Your task to perform on an android device: change timer sound Image 0: 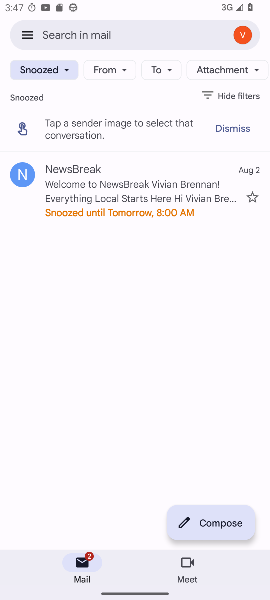
Step 0: press home button
Your task to perform on an android device: change timer sound Image 1: 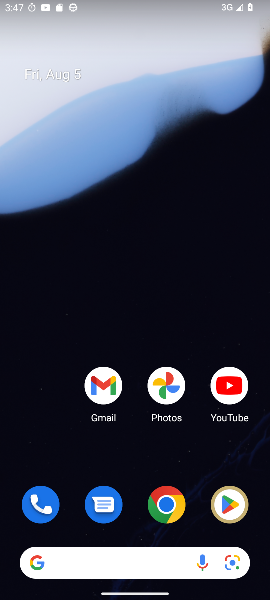
Step 1: drag from (66, 568) to (145, 104)
Your task to perform on an android device: change timer sound Image 2: 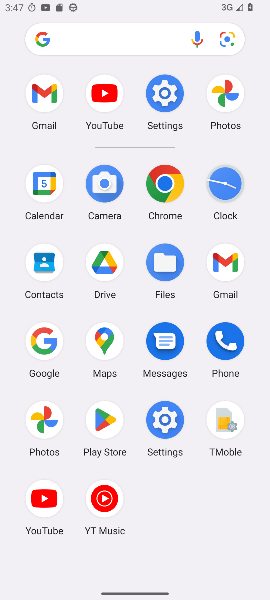
Step 2: click (221, 180)
Your task to perform on an android device: change timer sound Image 3: 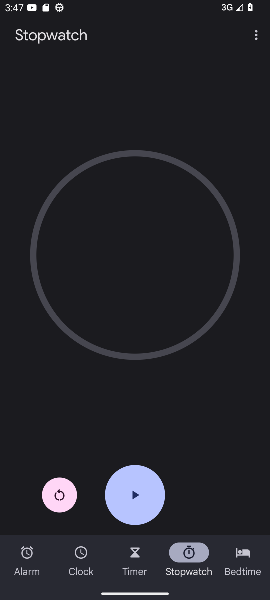
Step 3: click (124, 556)
Your task to perform on an android device: change timer sound Image 4: 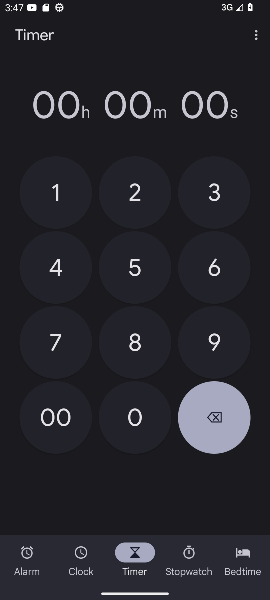
Step 4: click (254, 35)
Your task to perform on an android device: change timer sound Image 5: 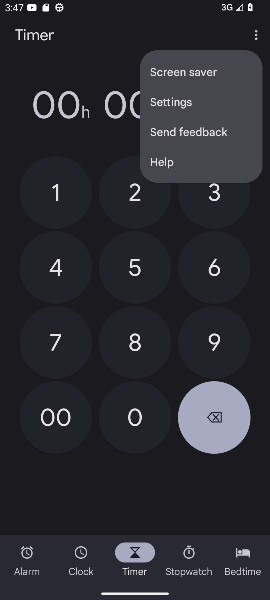
Step 5: click (171, 92)
Your task to perform on an android device: change timer sound Image 6: 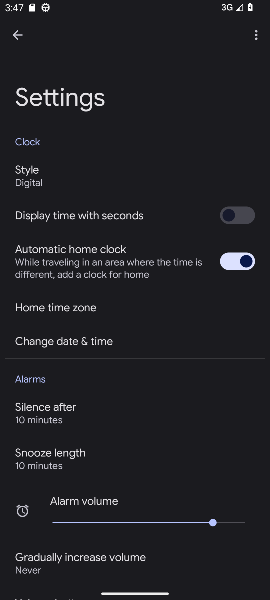
Step 6: drag from (97, 461) to (107, 177)
Your task to perform on an android device: change timer sound Image 7: 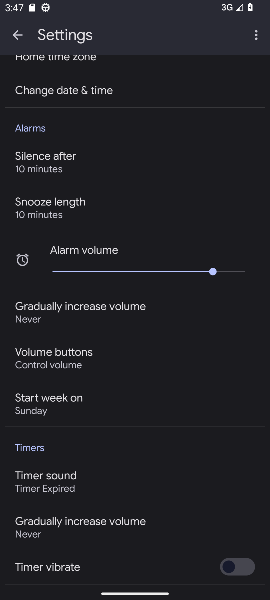
Step 7: click (55, 485)
Your task to perform on an android device: change timer sound Image 8: 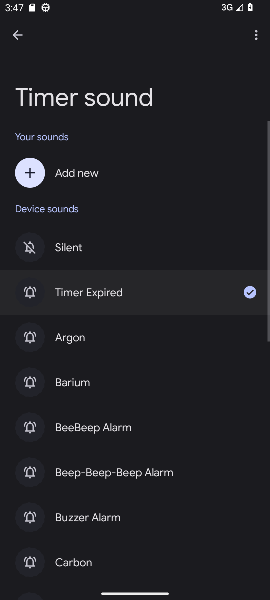
Step 8: click (80, 254)
Your task to perform on an android device: change timer sound Image 9: 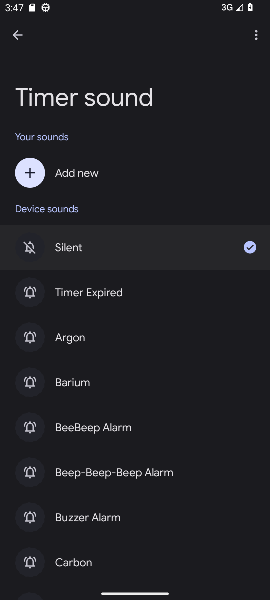
Step 9: click (68, 348)
Your task to perform on an android device: change timer sound Image 10: 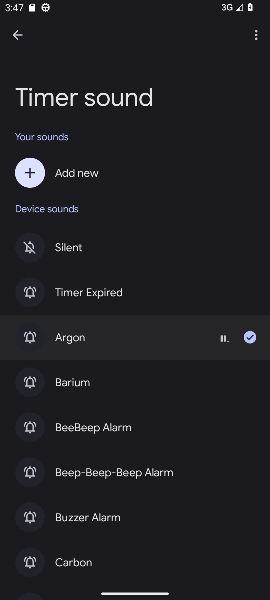
Step 10: task complete